Your task to perform on an android device: turn off location history Image 0: 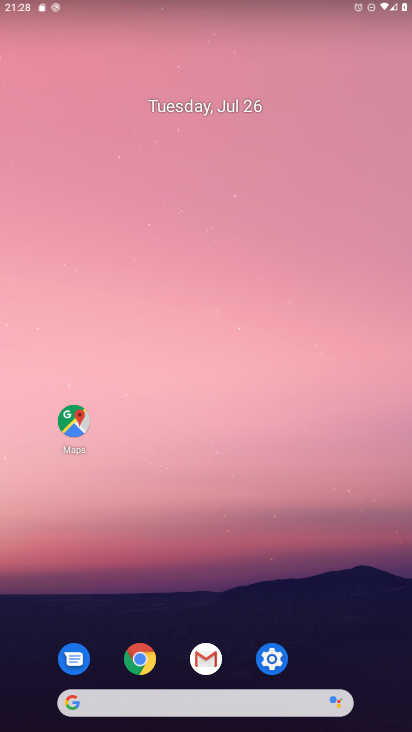
Step 0: click (262, 661)
Your task to perform on an android device: turn off location history Image 1: 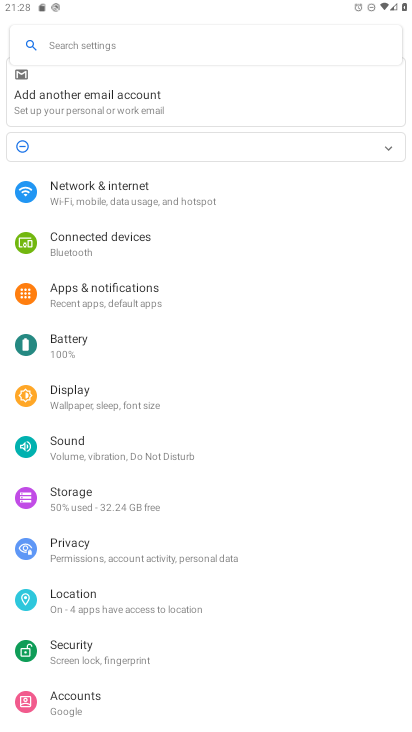
Step 1: click (112, 591)
Your task to perform on an android device: turn off location history Image 2: 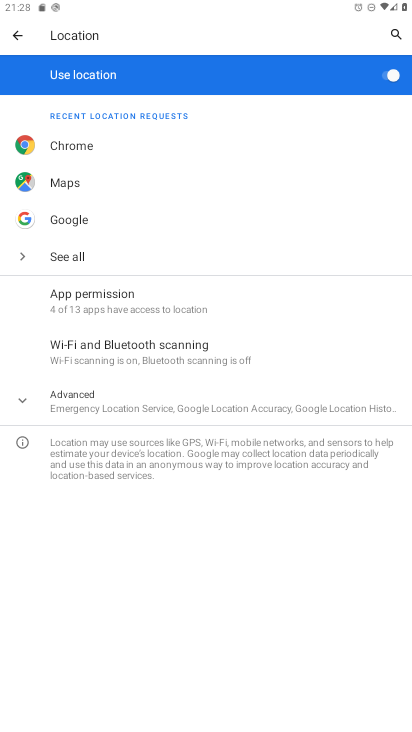
Step 2: click (18, 398)
Your task to perform on an android device: turn off location history Image 3: 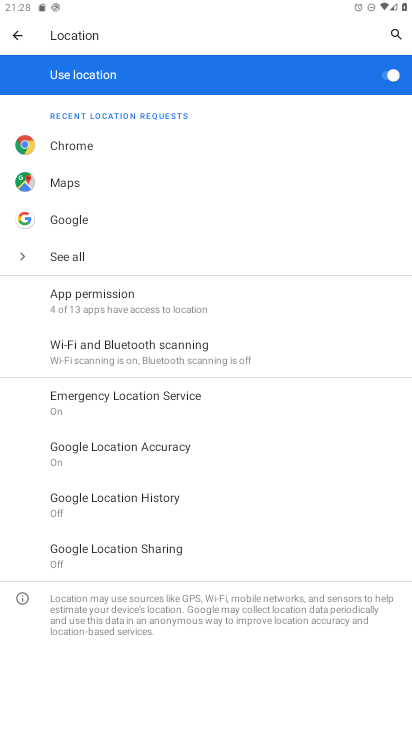
Step 3: click (154, 496)
Your task to perform on an android device: turn off location history Image 4: 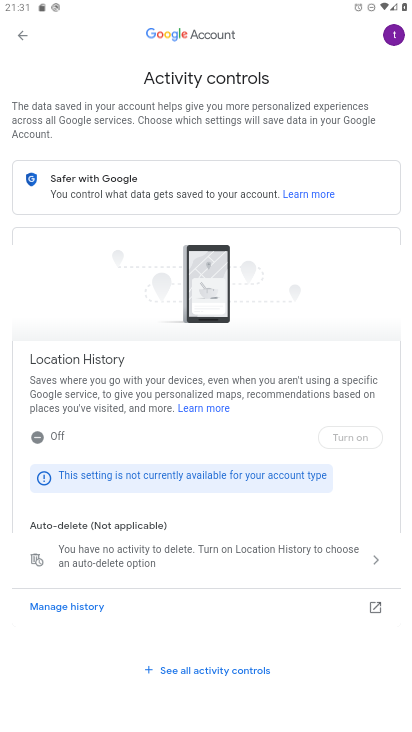
Step 4: task complete